Your task to perform on an android device: toggle javascript in the chrome app Image 0: 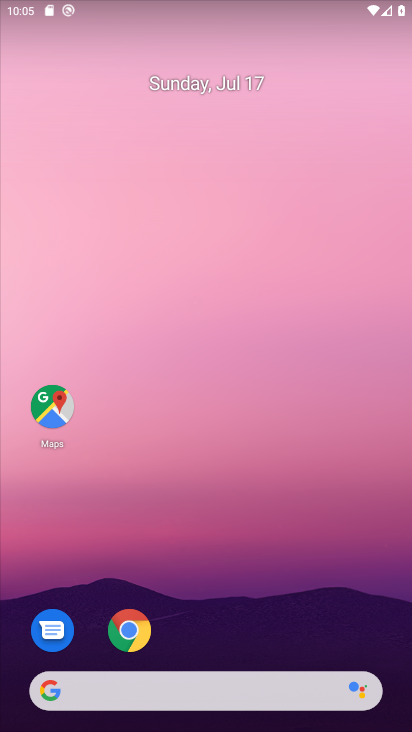
Step 0: drag from (198, 638) to (240, 5)
Your task to perform on an android device: toggle javascript in the chrome app Image 1: 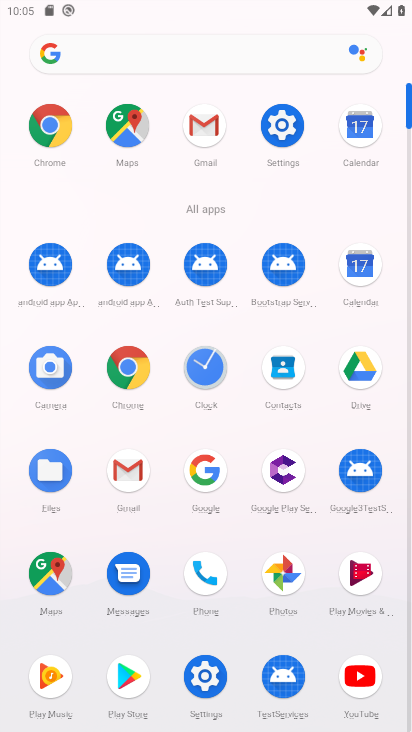
Step 1: click (132, 374)
Your task to perform on an android device: toggle javascript in the chrome app Image 2: 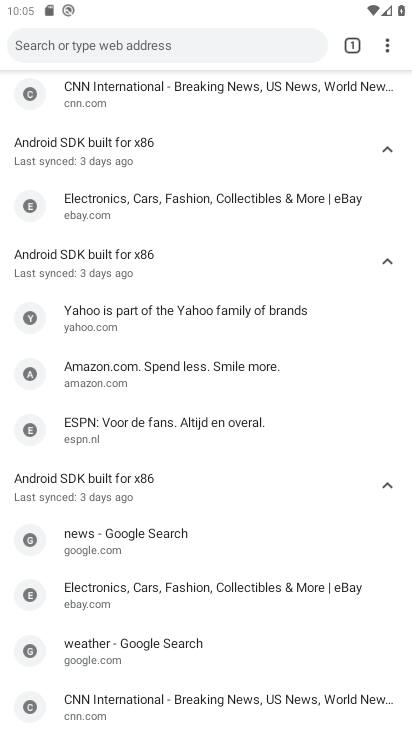
Step 2: click (382, 37)
Your task to perform on an android device: toggle javascript in the chrome app Image 3: 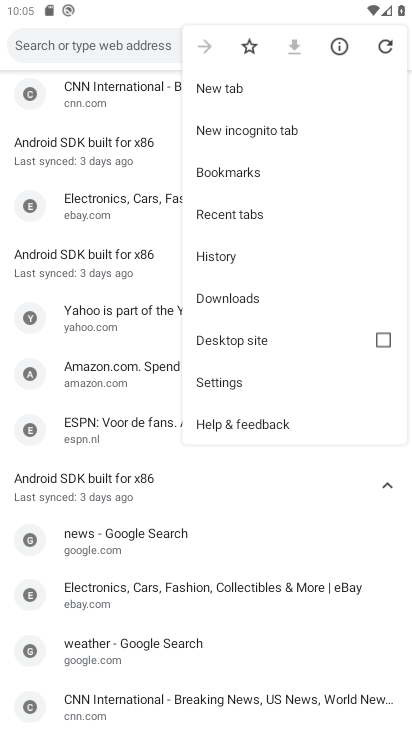
Step 3: click (220, 379)
Your task to perform on an android device: toggle javascript in the chrome app Image 4: 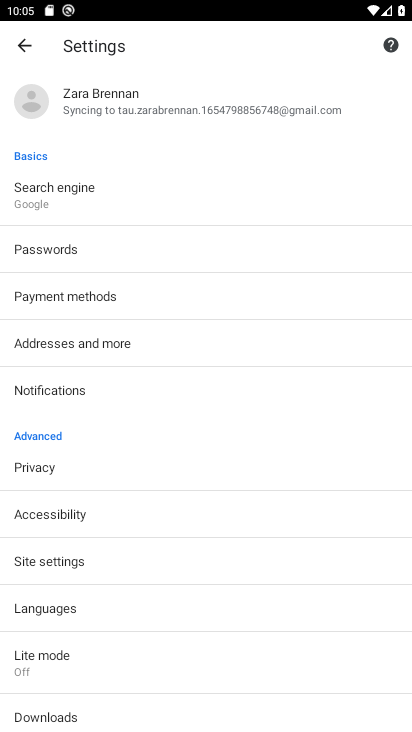
Step 4: click (88, 551)
Your task to perform on an android device: toggle javascript in the chrome app Image 5: 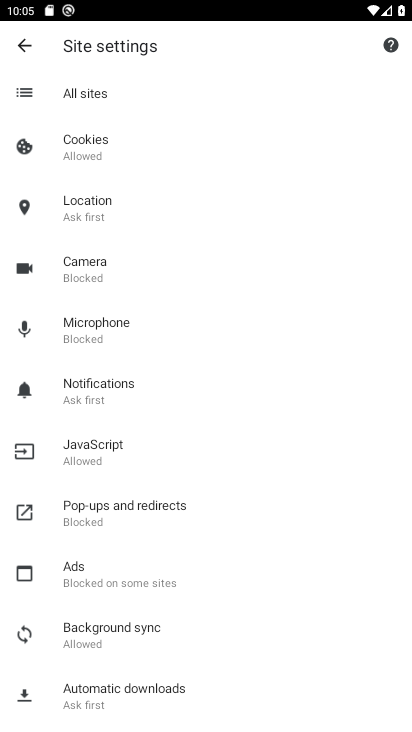
Step 5: click (109, 453)
Your task to perform on an android device: toggle javascript in the chrome app Image 6: 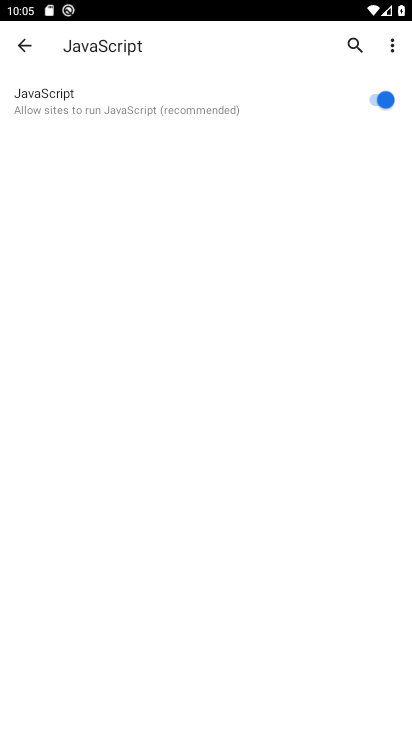
Step 6: click (350, 99)
Your task to perform on an android device: toggle javascript in the chrome app Image 7: 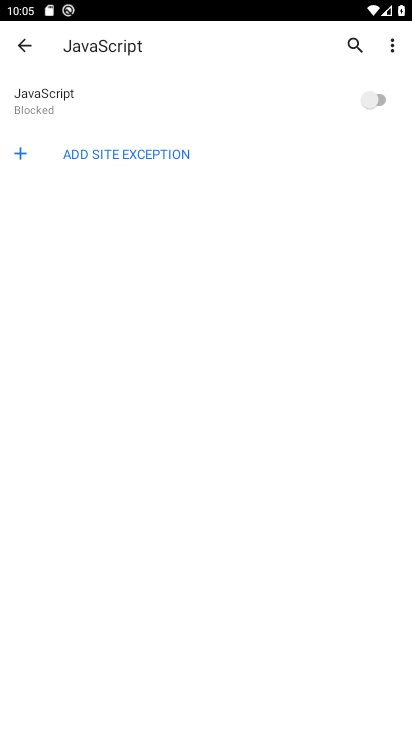
Step 7: task complete